Your task to perform on an android device: Open wifi settings Image 0: 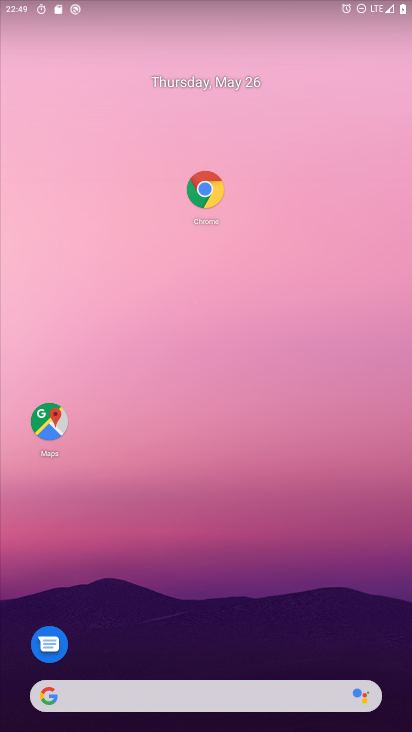
Step 0: drag from (216, 530) to (205, 80)
Your task to perform on an android device: Open wifi settings Image 1: 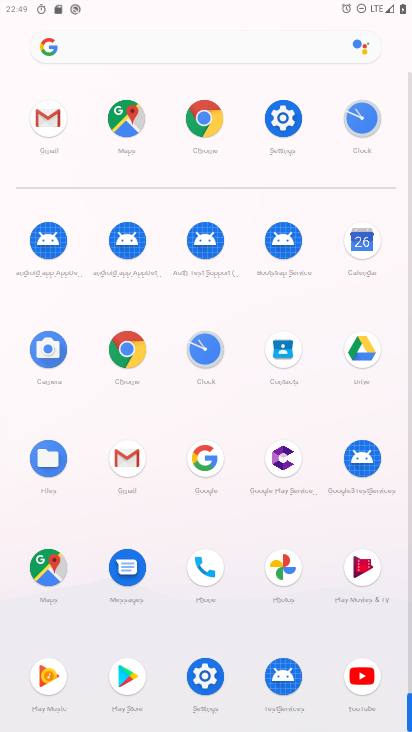
Step 1: click (280, 113)
Your task to perform on an android device: Open wifi settings Image 2: 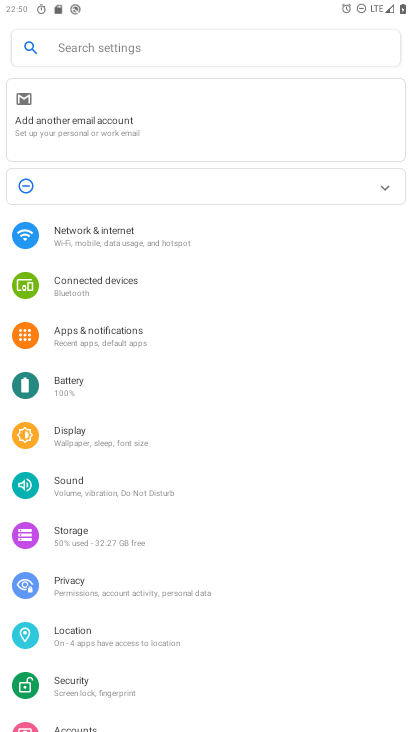
Step 2: click (122, 237)
Your task to perform on an android device: Open wifi settings Image 3: 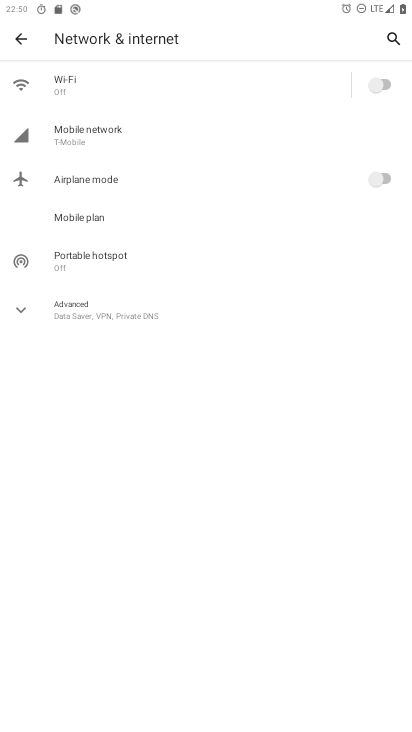
Step 3: click (195, 98)
Your task to perform on an android device: Open wifi settings Image 4: 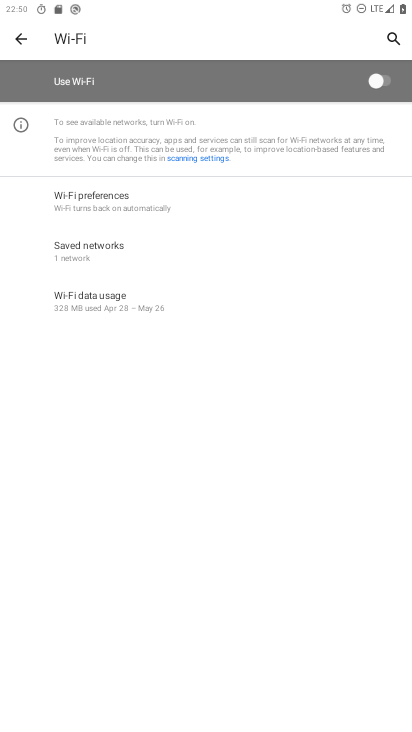
Step 4: task complete